Your task to perform on an android device: find photos in the google photos app Image 0: 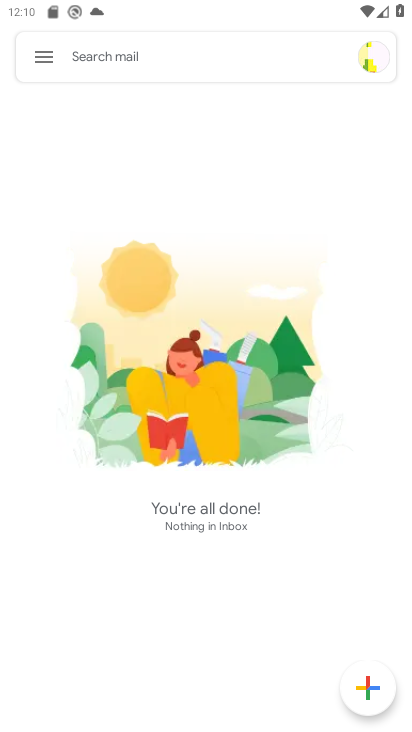
Step 0: press home button
Your task to perform on an android device: find photos in the google photos app Image 1: 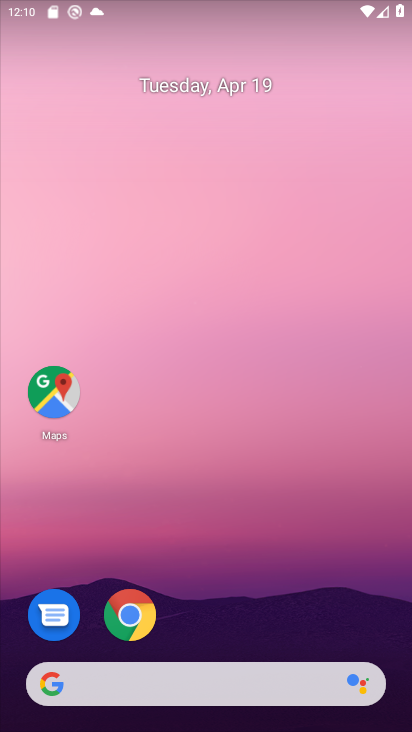
Step 1: drag from (198, 620) to (234, 312)
Your task to perform on an android device: find photos in the google photos app Image 2: 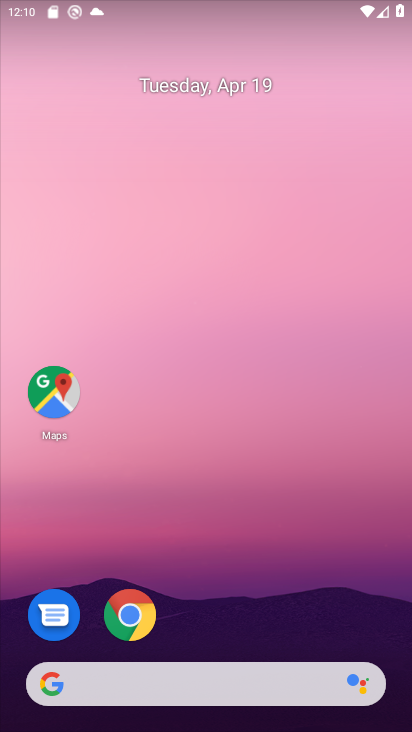
Step 2: drag from (180, 660) to (236, 184)
Your task to perform on an android device: find photos in the google photos app Image 3: 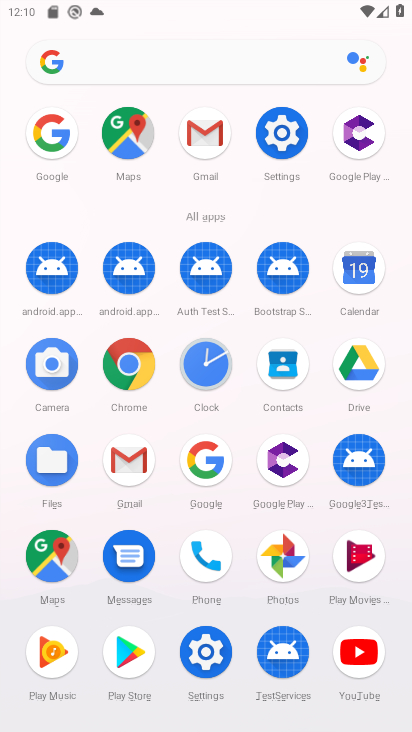
Step 3: click (275, 557)
Your task to perform on an android device: find photos in the google photos app Image 4: 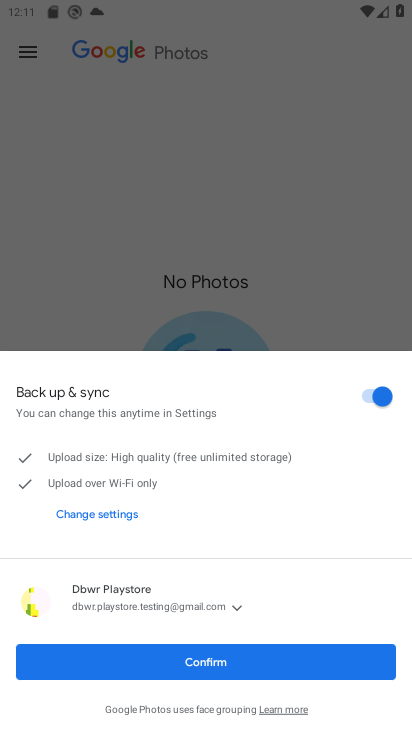
Step 4: click (203, 653)
Your task to perform on an android device: find photos in the google photos app Image 5: 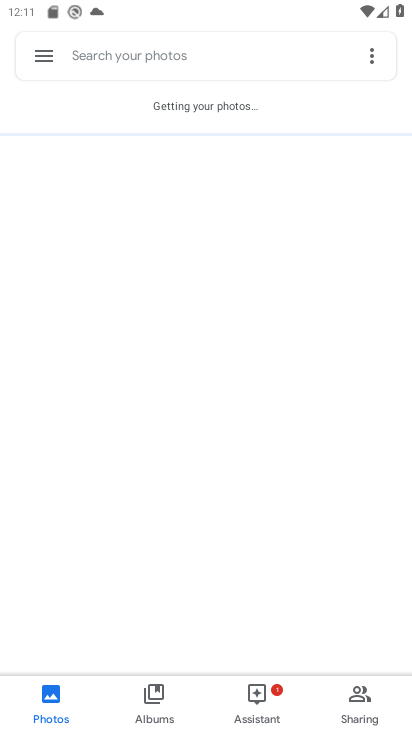
Step 5: click (161, 54)
Your task to perform on an android device: find photos in the google photos app Image 6: 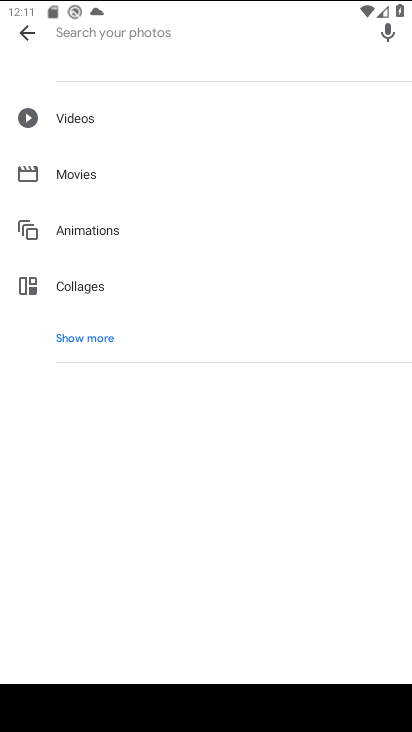
Step 6: type "album 09"
Your task to perform on an android device: find photos in the google photos app Image 7: 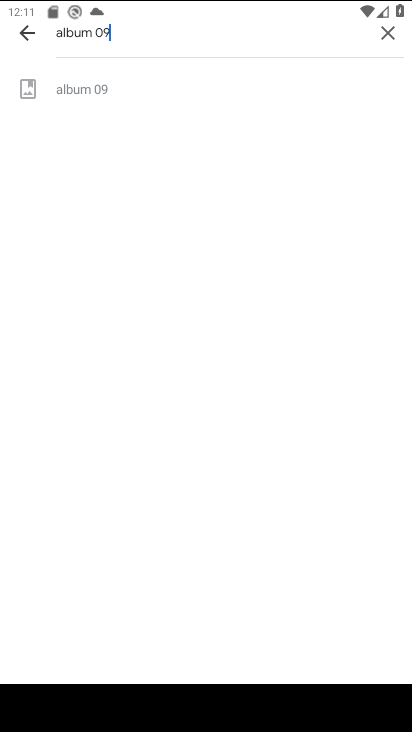
Step 7: click (73, 85)
Your task to perform on an android device: find photos in the google photos app Image 8: 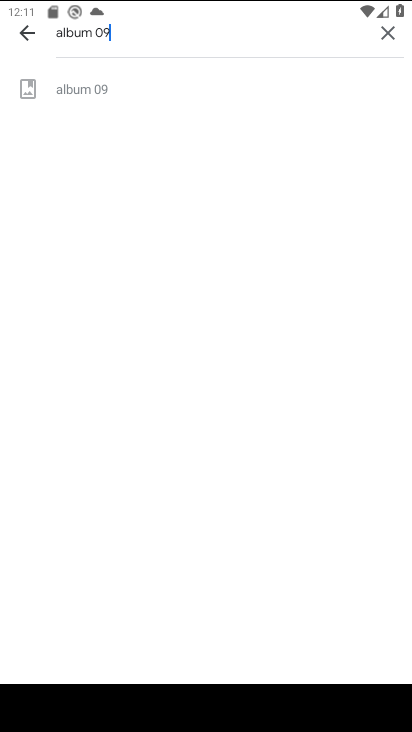
Step 8: task complete